Your task to perform on an android device: install app "Spotify: Music and Podcasts" Image 0: 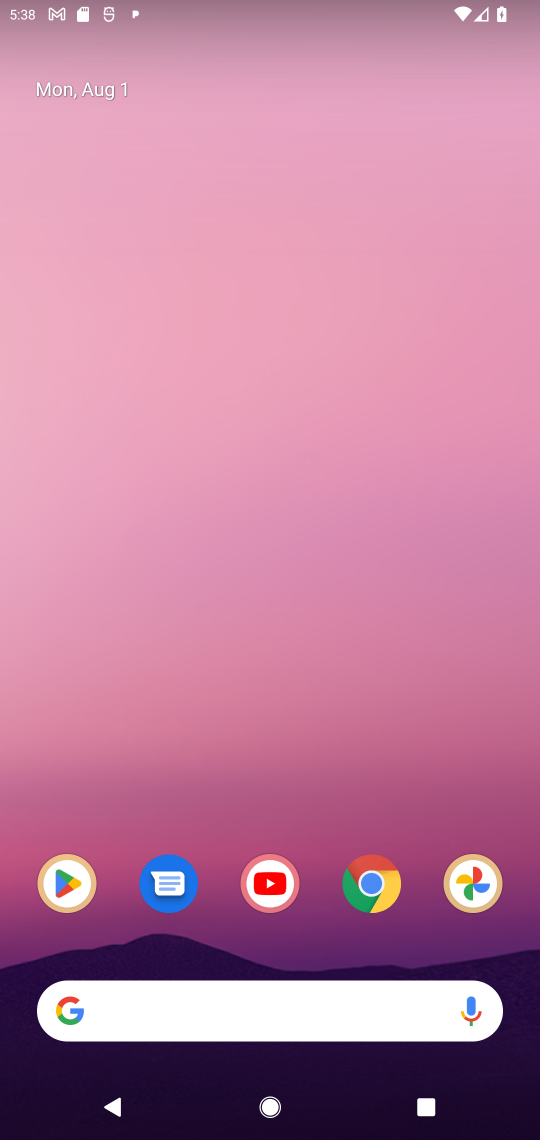
Step 0: click (50, 866)
Your task to perform on an android device: install app "Spotify: Music and Podcasts" Image 1: 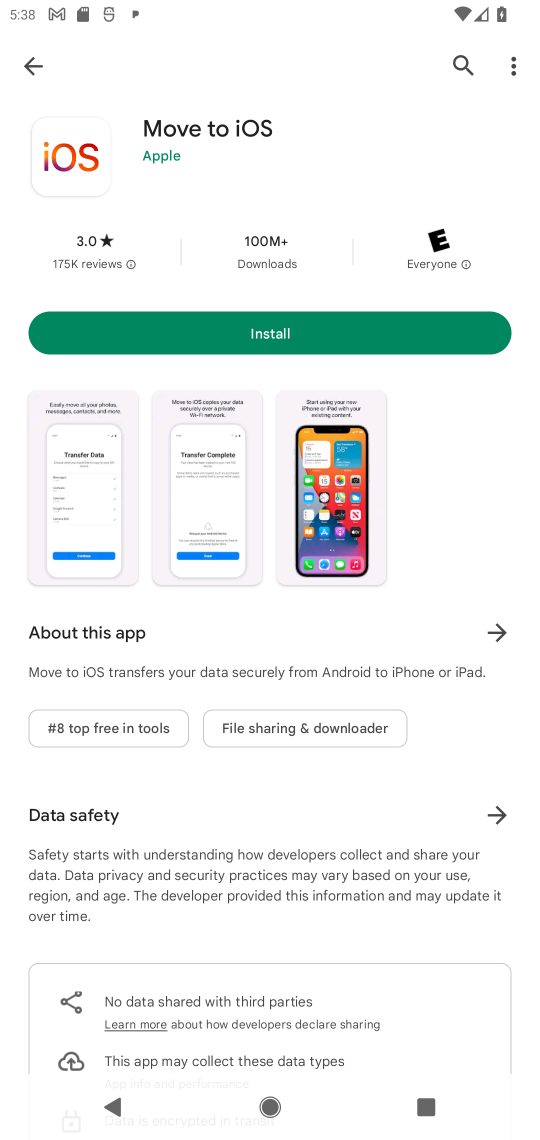
Step 1: click (33, 74)
Your task to perform on an android device: install app "Spotify: Music and Podcasts" Image 2: 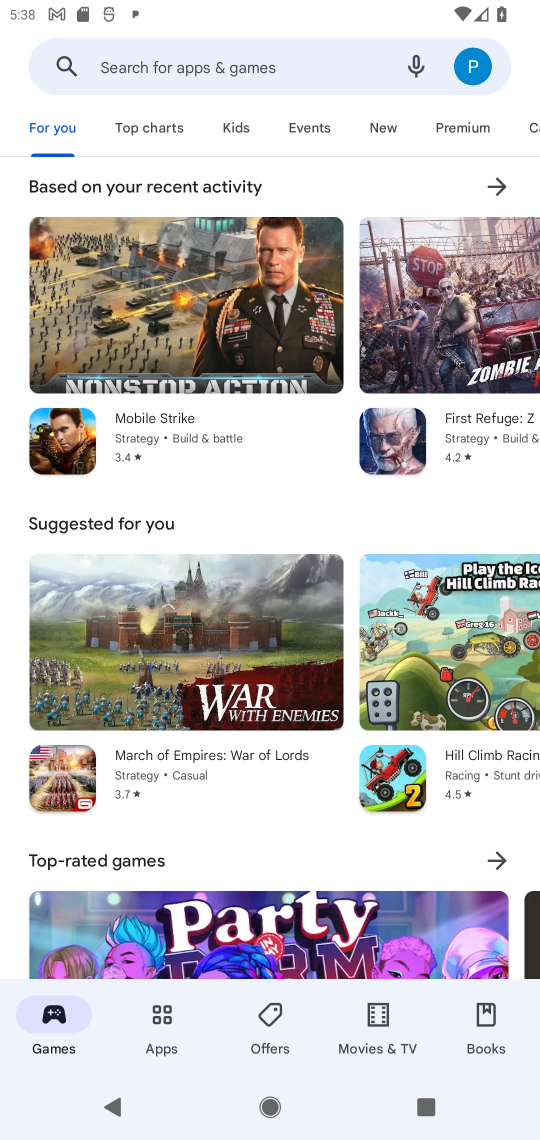
Step 2: click (155, 61)
Your task to perform on an android device: install app "Spotify: Music and Podcasts" Image 3: 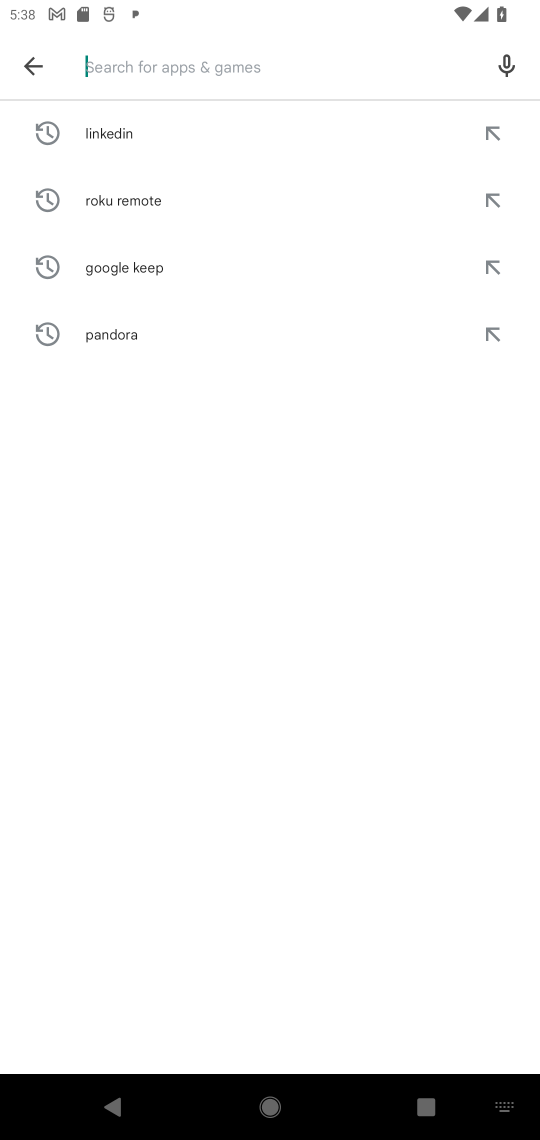
Step 3: type "Spotify"
Your task to perform on an android device: install app "Spotify: Music and Podcasts" Image 4: 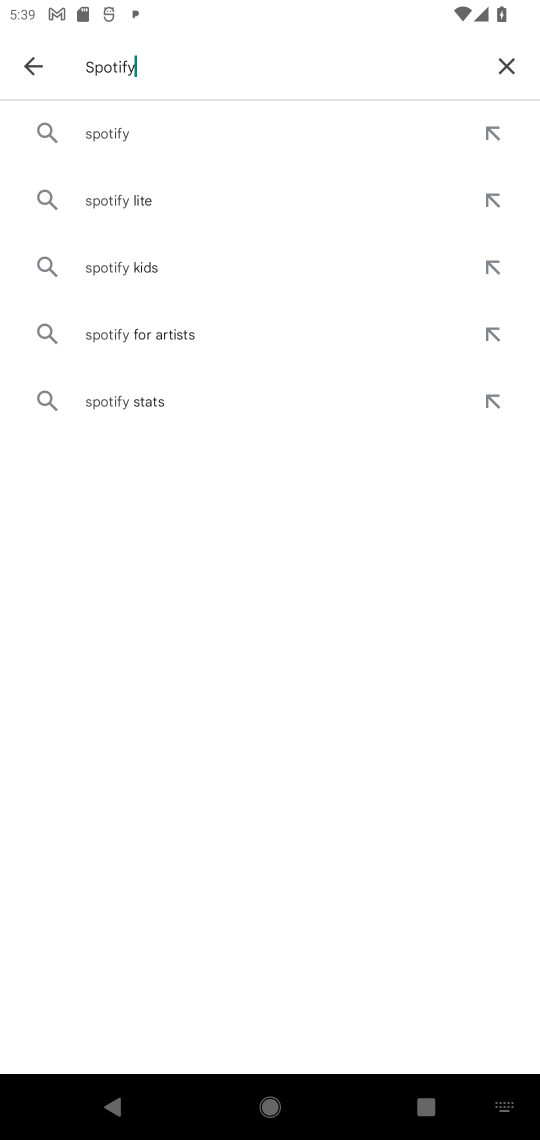
Step 4: click (97, 131)
Your task to perform on an android device: install app "Spotify: Music and Podcasts" Image 5: 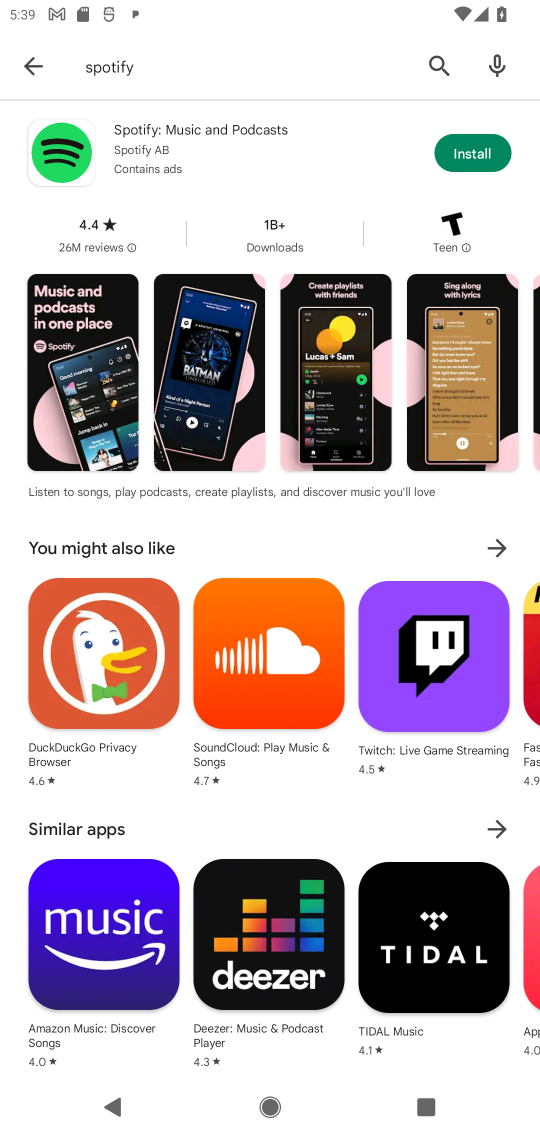
Step 5: click (466, 145)
Your task to perform on an android device: install app "Spotify: Music and Podcasts" Image 6: 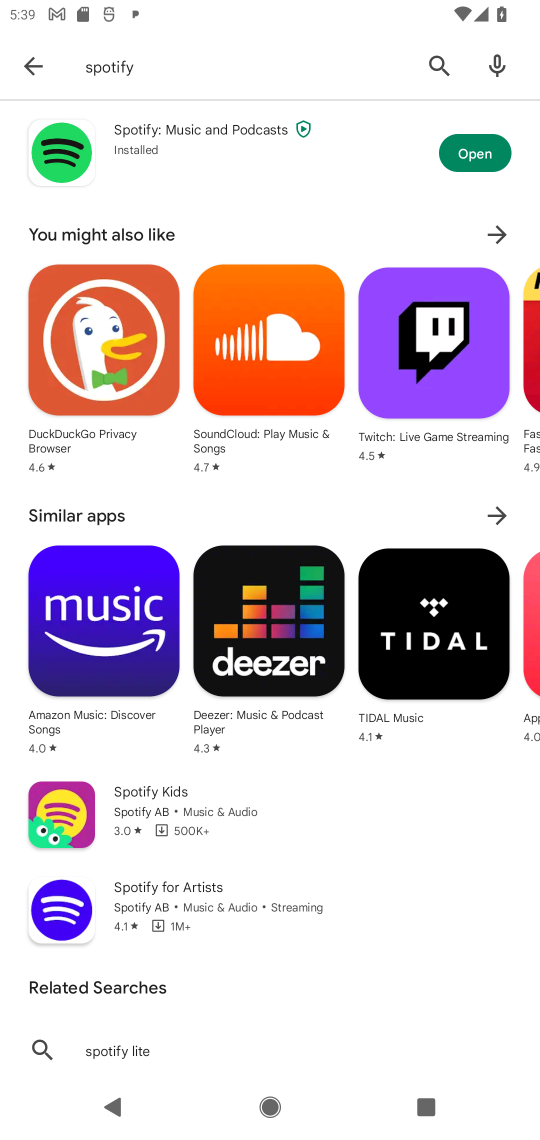
Step 6: click (480, 160)
Your task to perform on an android device: install app "Spotify: Music and Podcasts" Image 7: 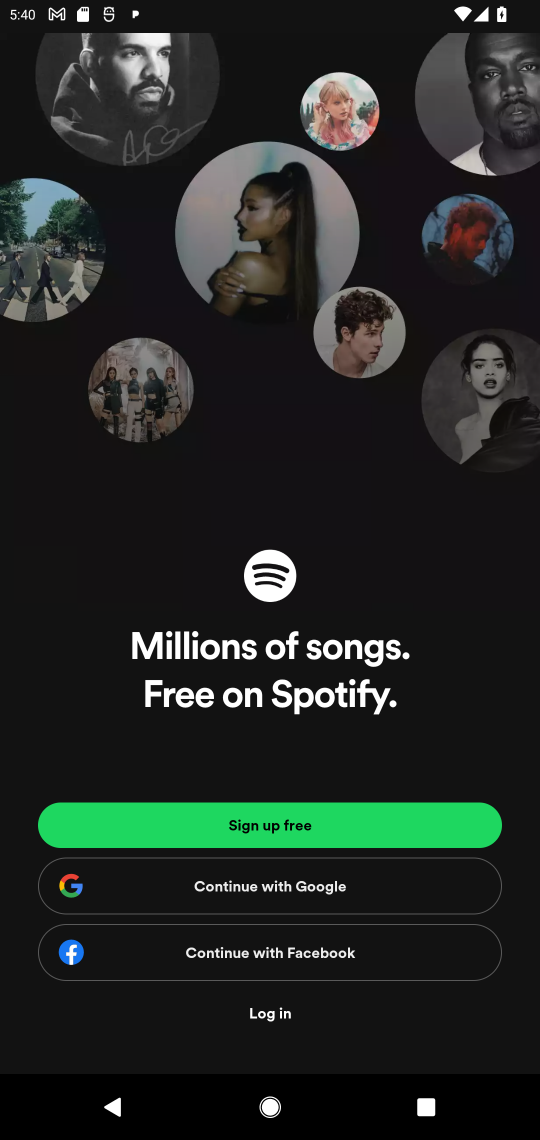
Step 7: task complete